Your task to perform on an android device: turn notification dots off Image 0: 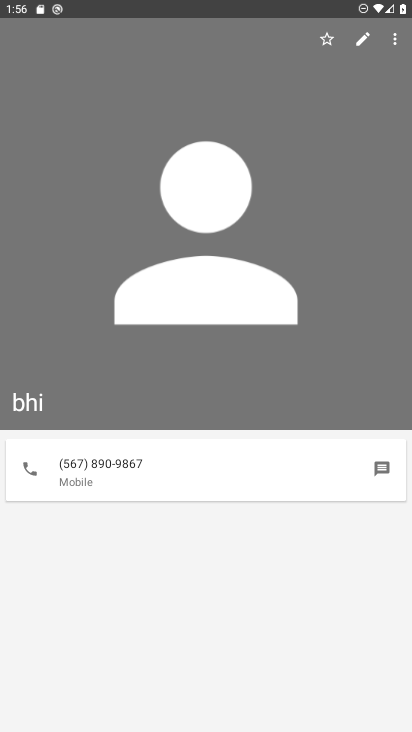
Step 0: press home button
Your task to perform on an android device: turn notification dots off Image 1: 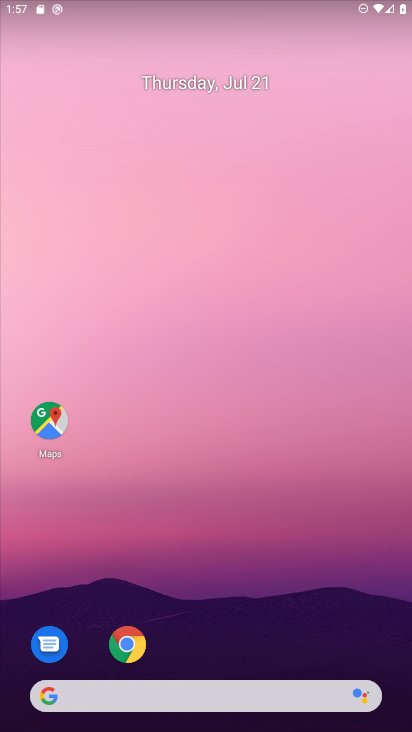
Step 1: drag from (242, 620) to (237, 181)
Your task to perform on an android device: turn notification dots off Image 2: 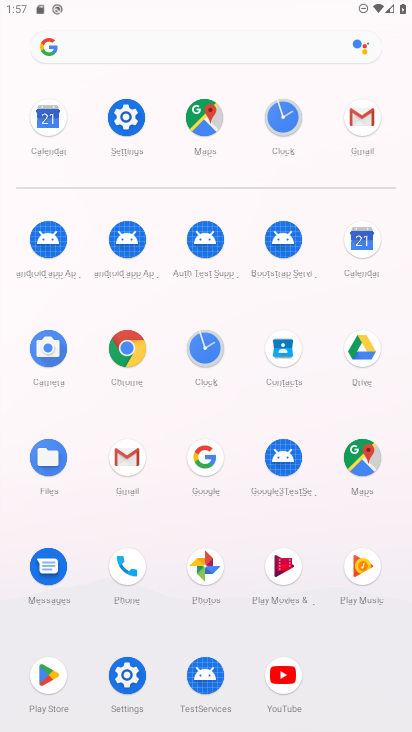
Step 2: click (129, 112)
Your task to perform on an android device: turn notification dots off Image 3: 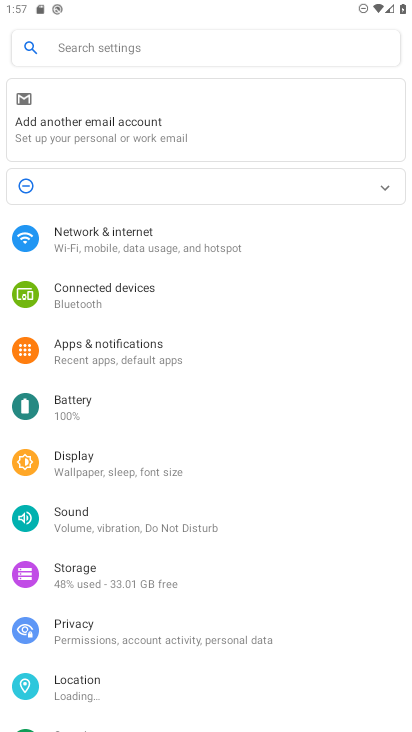
Step 3: click (95, 358)
Your task to perform on an android device: turn notification dots off Image 4: 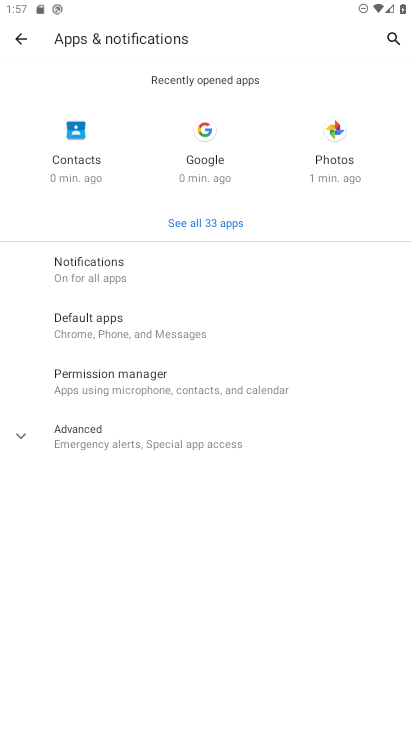
Step 4: click (137, 274)
Your task to perform on an android device: turn notification dots off Image 5: 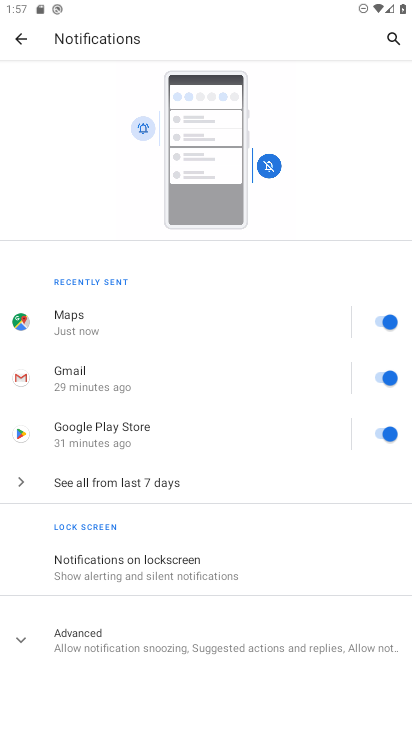
Step 5: click (106, 634)
Your task to perform on an android device: turn notification dots off Image 6: 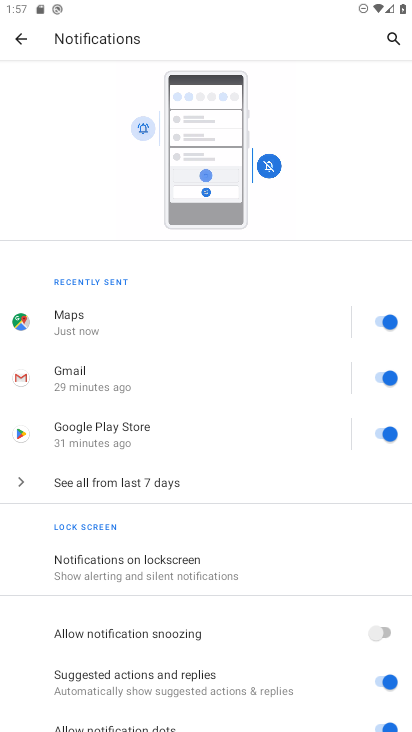
Step 6: click (378, 721)
Your task to perform on an android device: turn notification dots off Image 7: 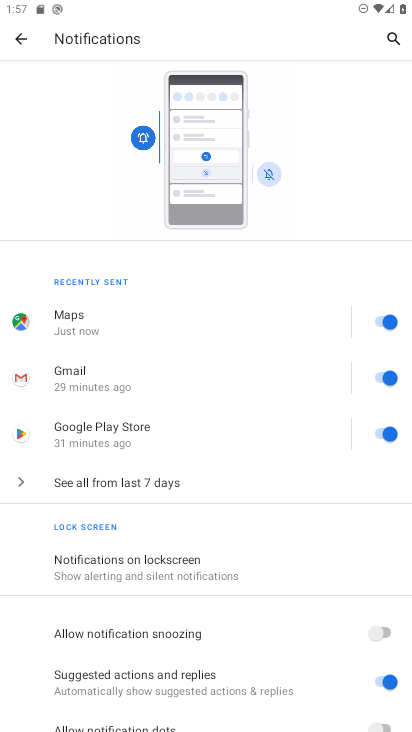
Step 7: task complete